Your task to perform on an android device: Do I have any events this weekend? Image 0: 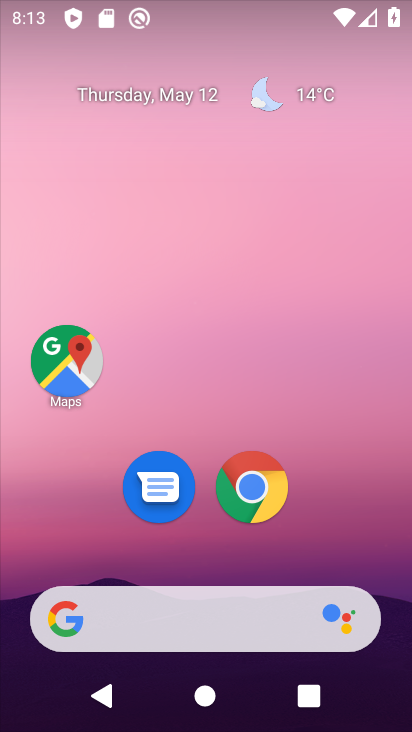
Step 0: drag from (53, 548) to (233, 99)
Your task to perform on an android device: Do I have any events this weekend? Image 1: 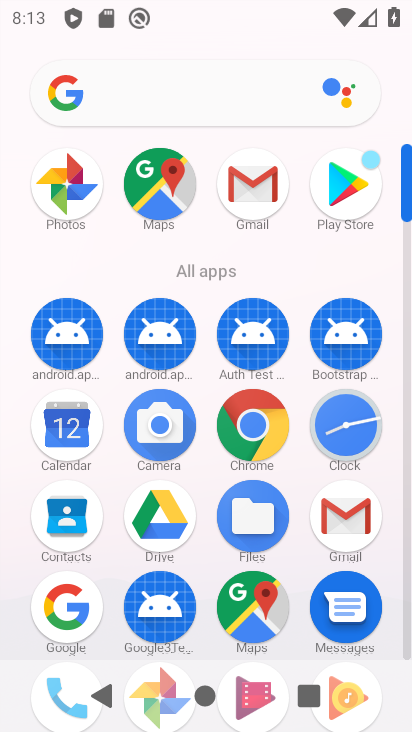
Step 1: click (63, 417)
Your task to perform on an android device: Do I have any events this weekend? Image 2: 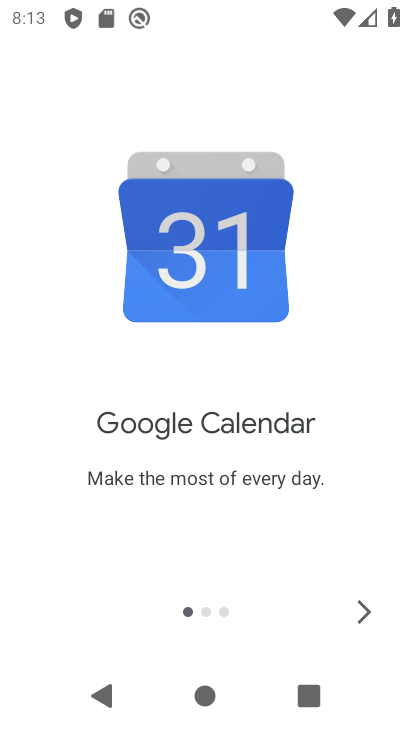
Step 2: click (368, 614)
Your task to perform on an android device: Do I have any events this weekend? Image 3: 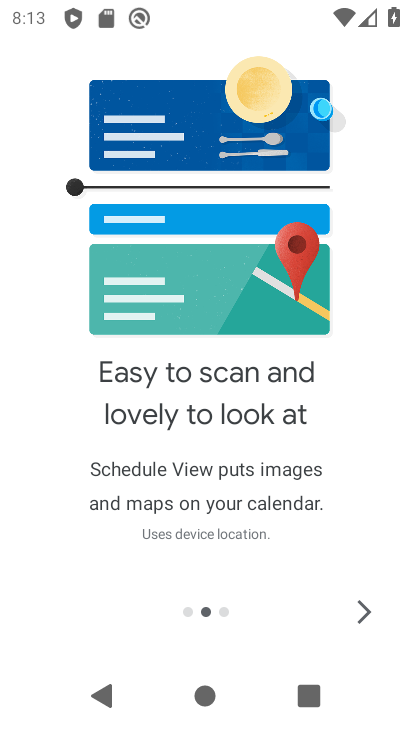
Step 3: click (368, 614)
Your task to perform on an android device: Do I have any events this weekend? Image 4: 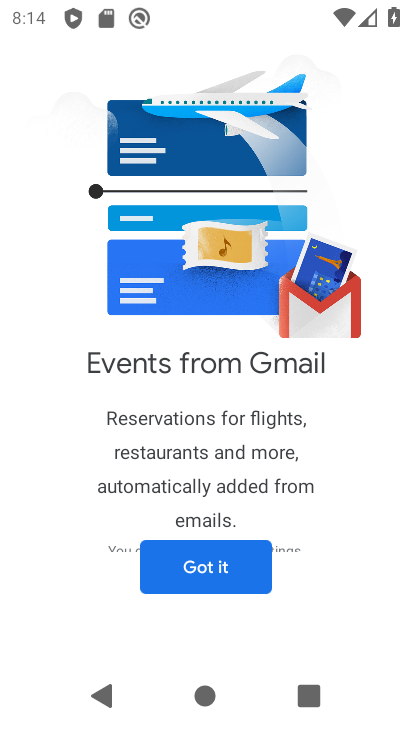
Step 4: press home button
Your task to perform on an android device: Do I have any events this weekend? Image 5: 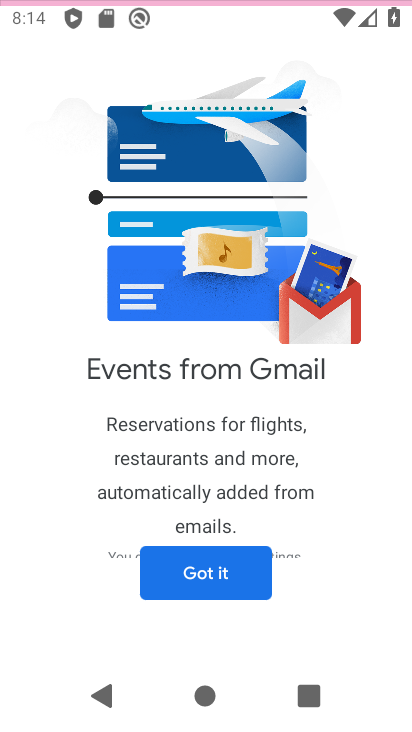
Step 5: click (230, 562)
Your task to perform on an android device: Do I have any events this weekend? Image 6: 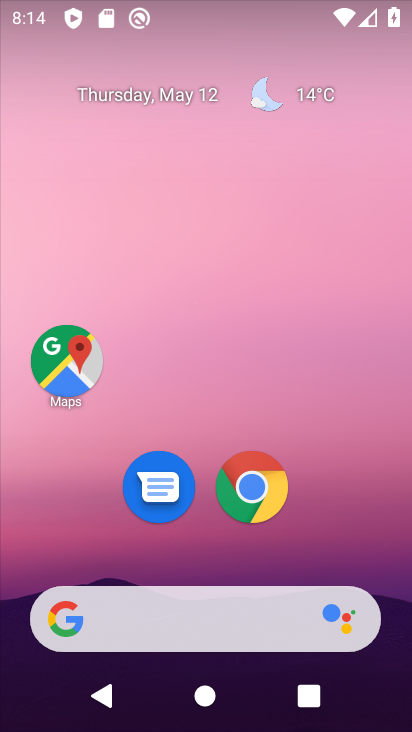
Step 6: drag from (33, 624) to (212, 155)
Your task to perform on an android device: Do I have any events this weekend? Image 7: 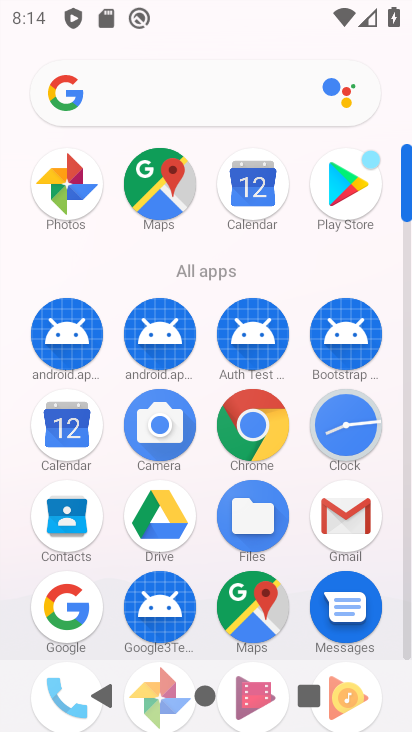
Step 7: click (248, 187)
Your task to perform on an android device: Do I have any events this weekend? Image 8: 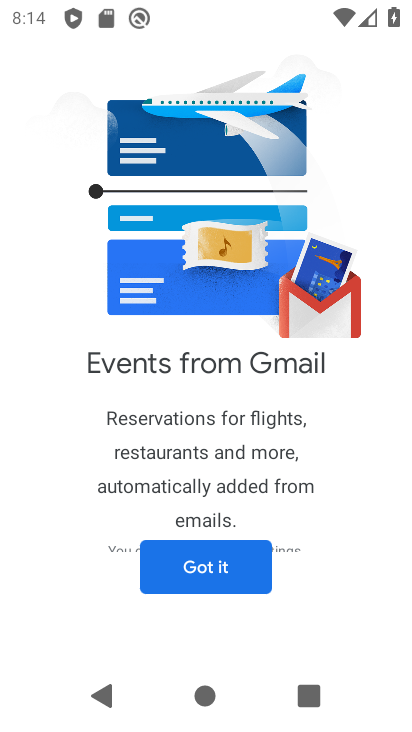
Step 8: click (185, 571)
Your task to perform on an android device: Do I have any events this weekend? Image 9: 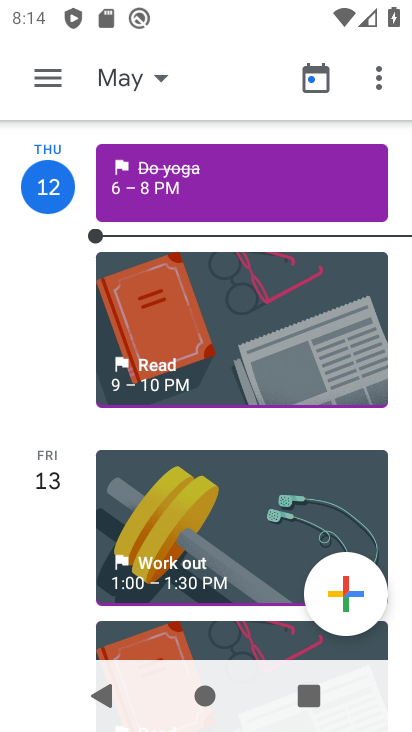
Step 9: click (124, 72)
Your task to perform on an android device: Do I have any events this weekend? Image 10: 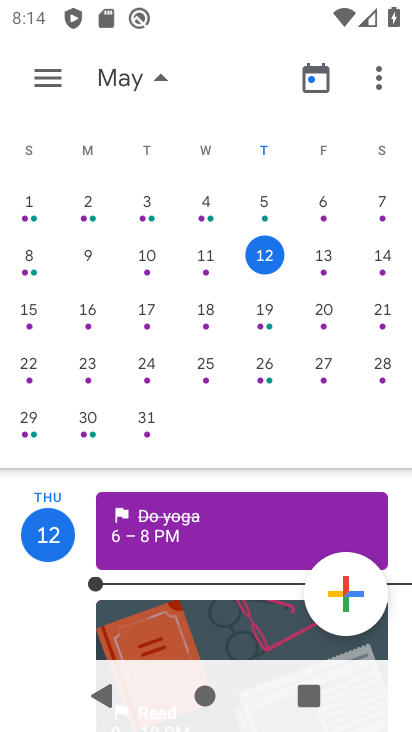
Step 10: click (376, 250)
Your task to perform on an android device: Do I have any events this weekend? Image 11: 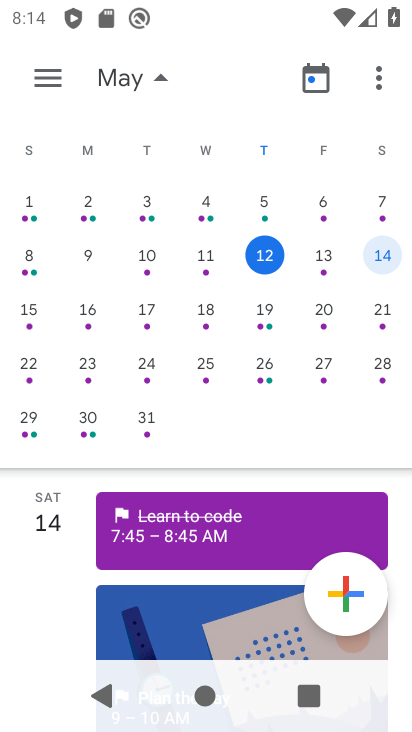
Step 11: click (31, 311)
Your task to perform on an android device: Do I have any events this weekend? Image 12: 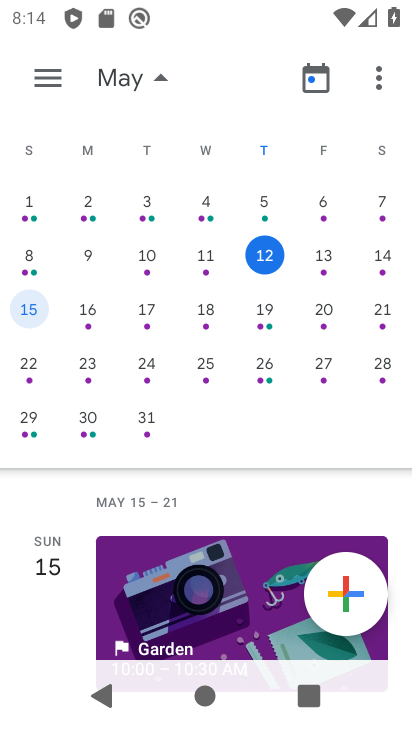
Step 12: task complete